Your task to perform on an android device: clear all cookies in the chrome app Image 0: 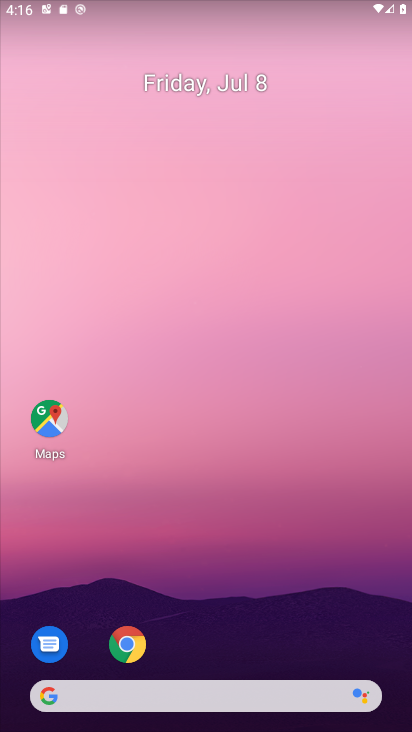
Step 0: click (128, 642)
Your task to perform on an android device: clear all cookies in the chrome app Image 1: 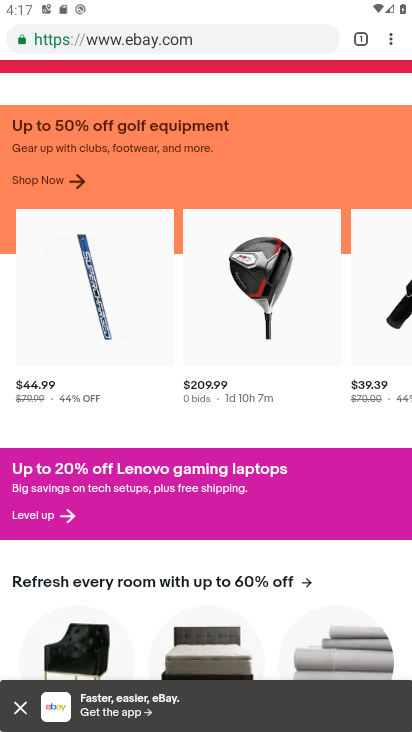
Step 1: click (389, 42)
Your task to perform on an android device: clear all cookies in the chrome app Image 2: 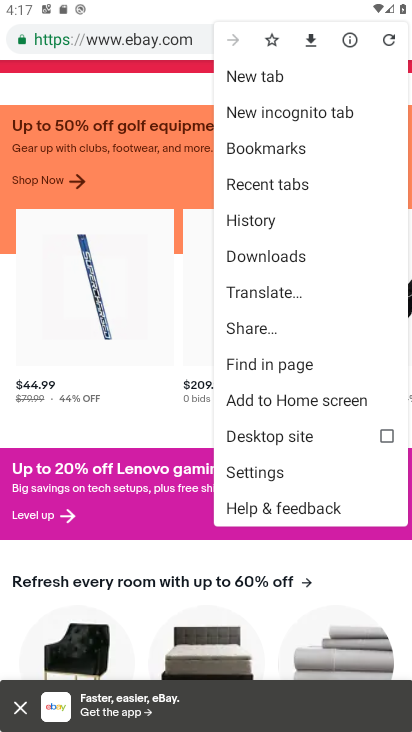
Step 2: click (257, 223)
Your task to perform on an android device: clear all cookies in the chrome app Image 3: 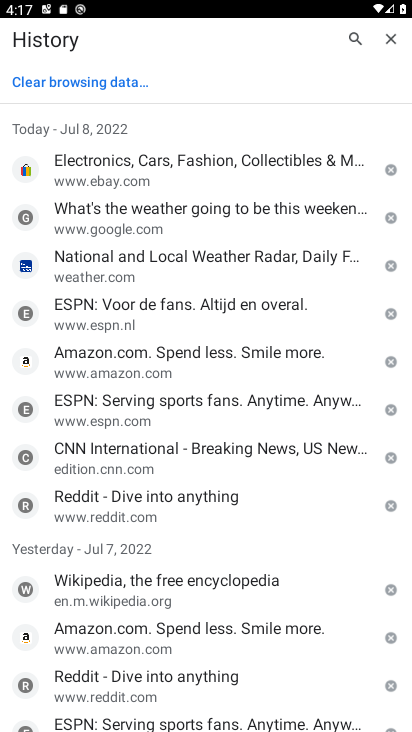
Step 3: click (96, 89)
Your task to perform on an android device: clear all cookies in the chrome app Image 4: 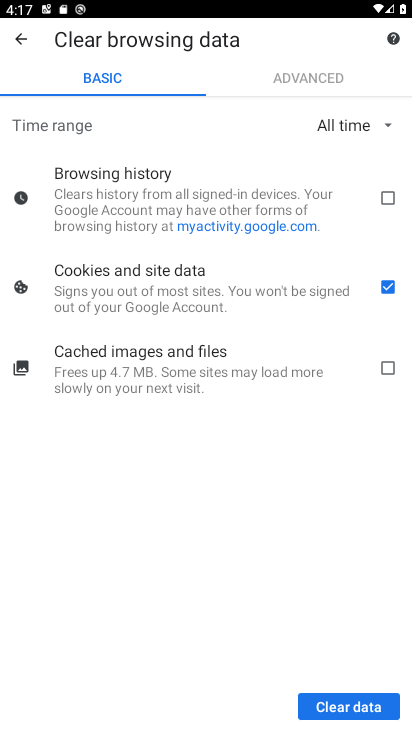
Step 4: click (345, 705)
Your task to perform on an android device: clear all cookies in the chrome app Image 5: 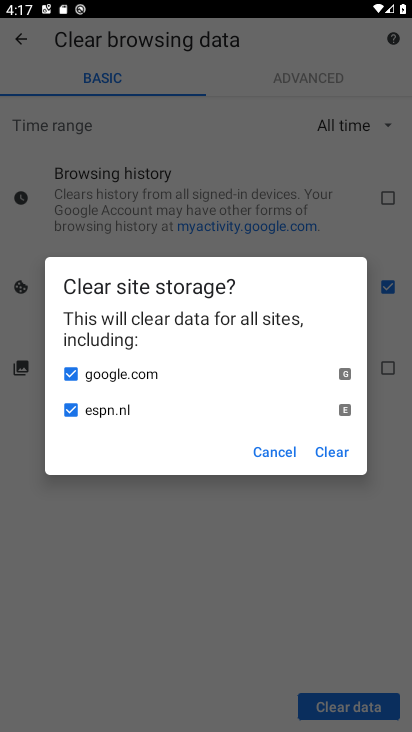
Step 5: click (334, 452)
Your task to perform on an android device: clear all cookies in the chrome app Image 6: 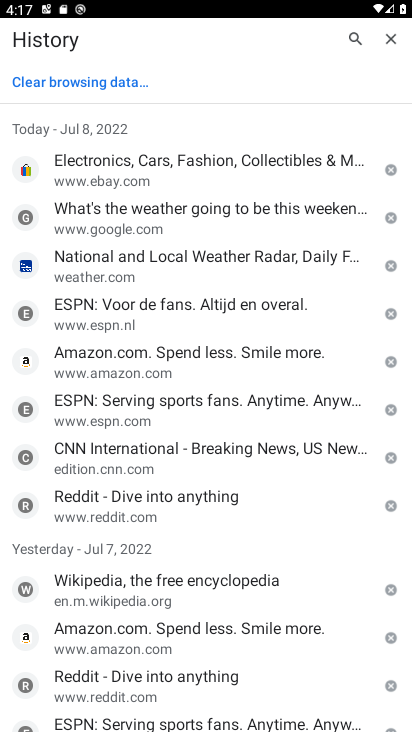
Step 6: task complete